Your task to perform on an android device: Toggle the flashlight Image 0: 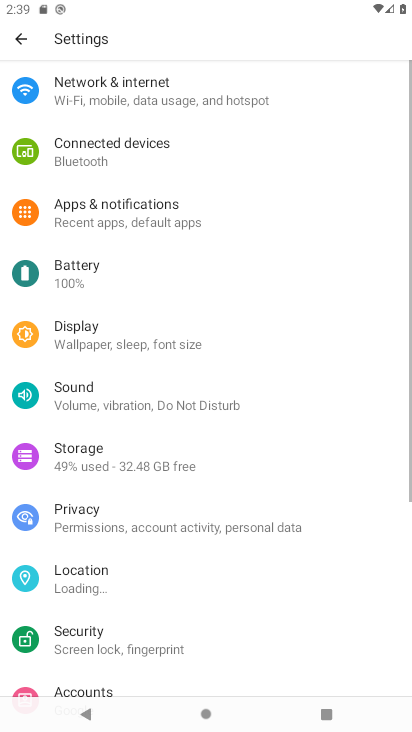
Step 0: press home button
Your task to perform on an android device: Toggle the flashlight Image 1: 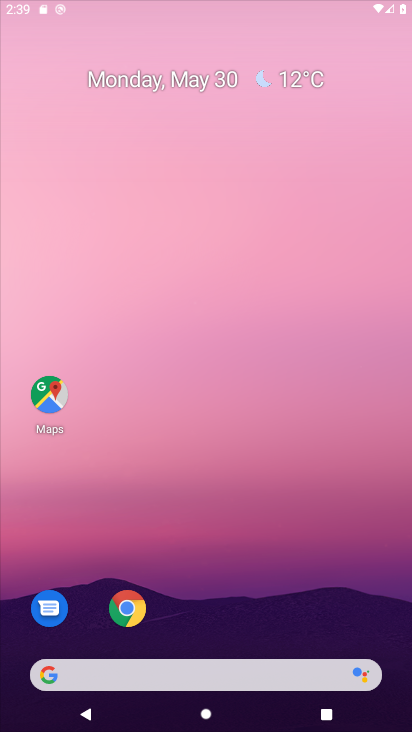
Step 1: task complete